Your task to perform on an android device: toggle show notifications on the lock screen Image 0: 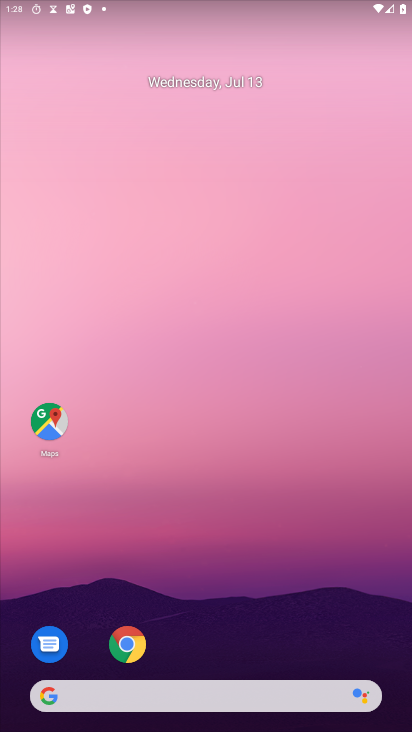
Step 0: press home button
Your task to perform on an android device: toggle show notifications on the lock screen Image 1: 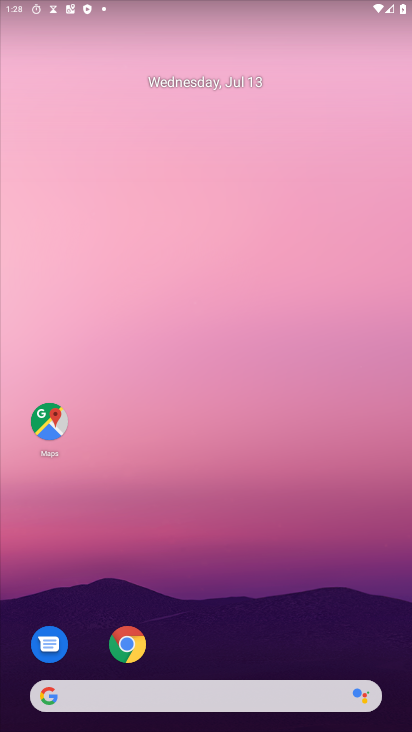
Step 1: drag from (213, 638) to (192, 66)
Your task to perform on an android device: toggle show notifications on the lock screen Image 2: 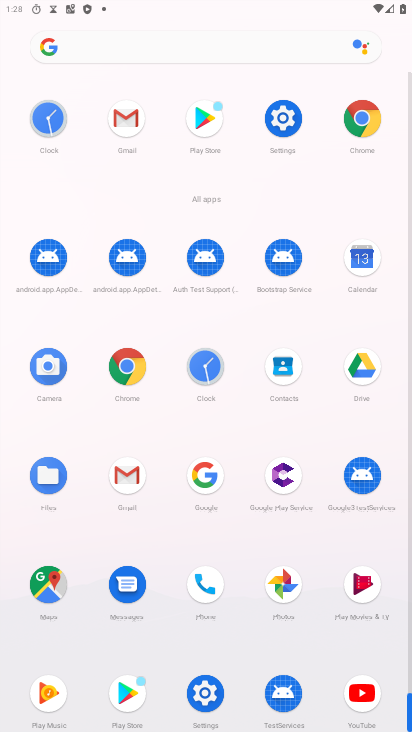
Step 2: click (297, 114)
Your task to perform on an android device: toggle show notifications on the lock screen Image 3: 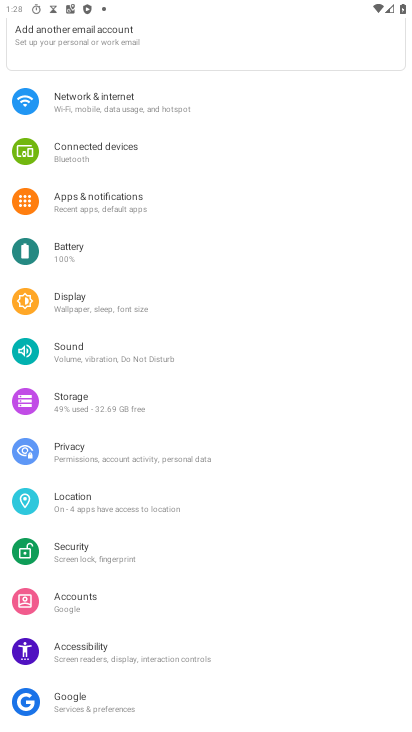
Step 3: click (92, 194)
Your task to perform on an android device: toggle show notifications on the lock screen Image 4: 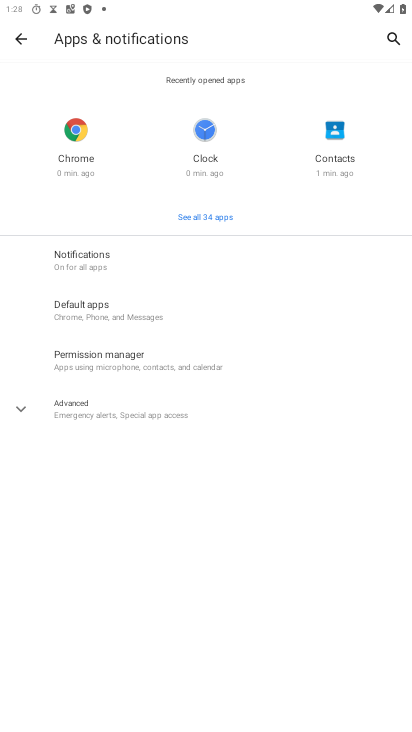
Step 4: click (80, 250)
Your task to perform on an android device: toggle show notifications on the lock screen Image 5: 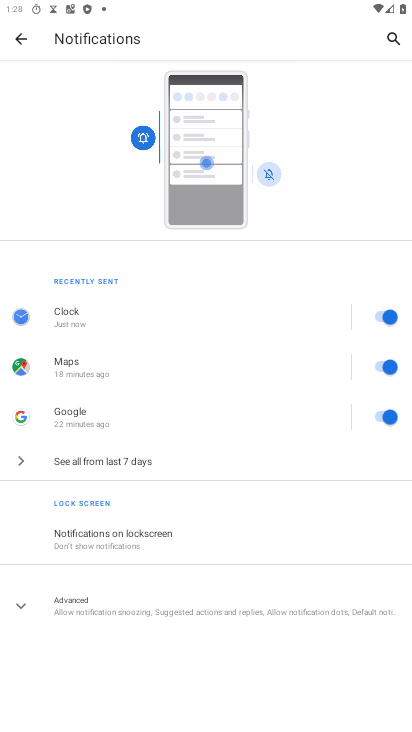
Step 5: click (96, 532)
Your task to perform on an android device: toggle show notifications on the lock screen Image 6: 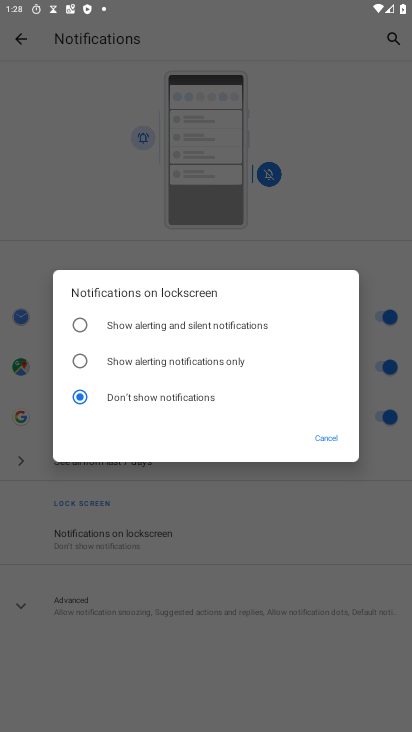
Step 6: click (130, 323)
Your task to perform on an android device: toggle show notifications on the lock screen Image 7: 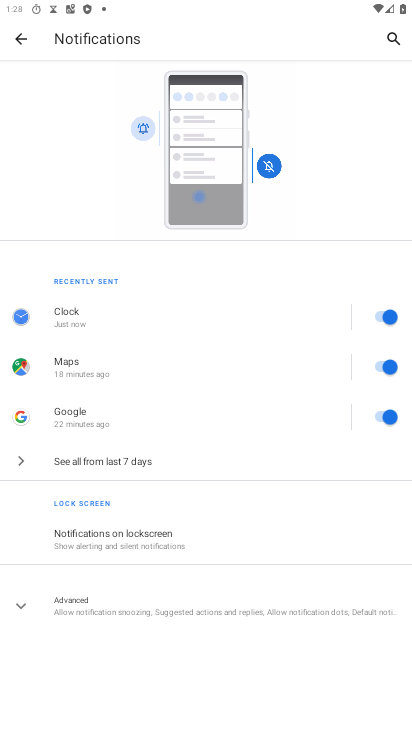
Step 7: task complete